Your task to perform on an android device: search for starred emails in the gmail app Image 0: 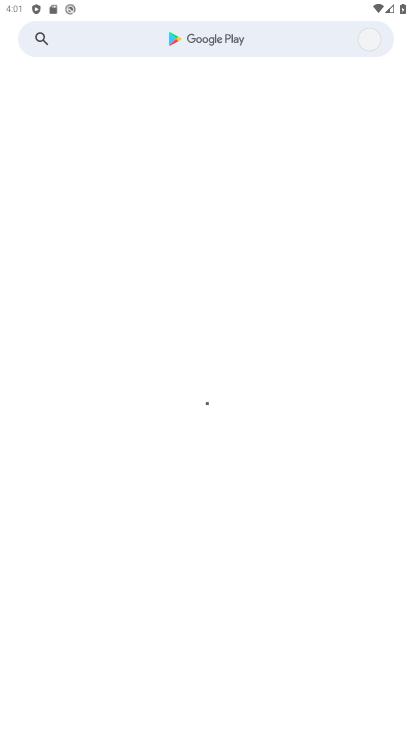
Step 0: press home button
Your task to perform on an android device: search for starred emails in the gmail app Image 1: 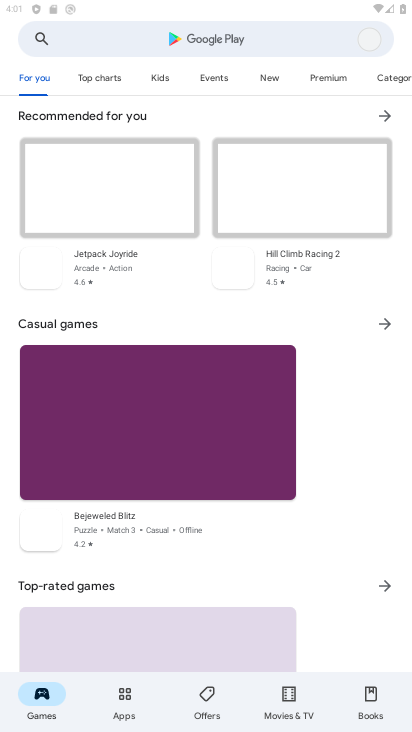
Step 1: press home button
Your task to perform on an android device: search for starred emails in the gmail app Image 2: 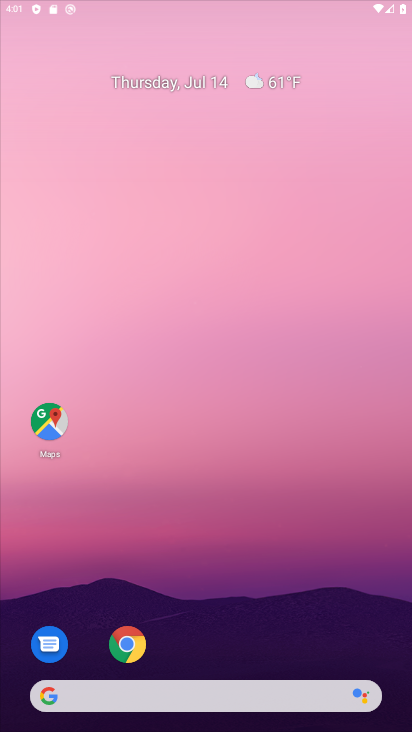
Step 2: press home button
Your task to perform on an android device: search for starred emails in the gmail app Image 3: 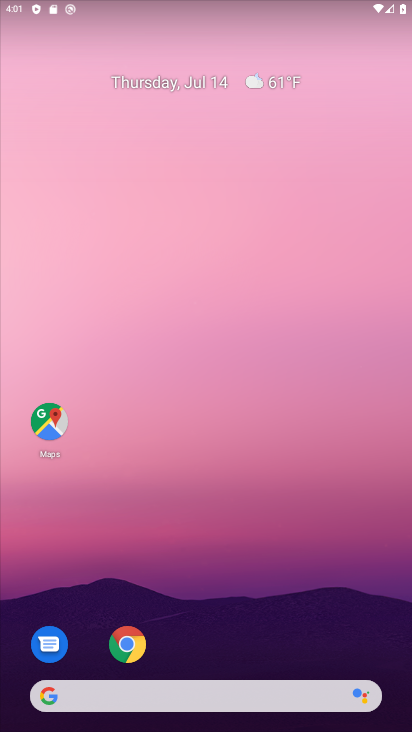
Step 3: drag from (229, 662) to (288, 133)
Your task to perform on an android device: search for starred emails in the gmail app Image 4: 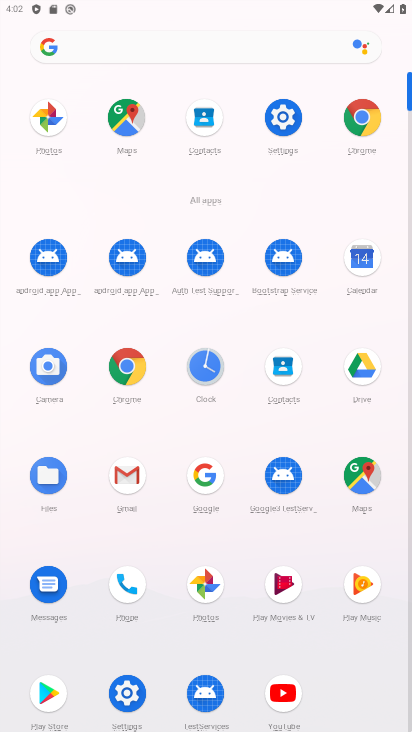
Step 4: click (138, 492)
Your task to perform on an android device: search for starred emails in the gmail app Image 5: 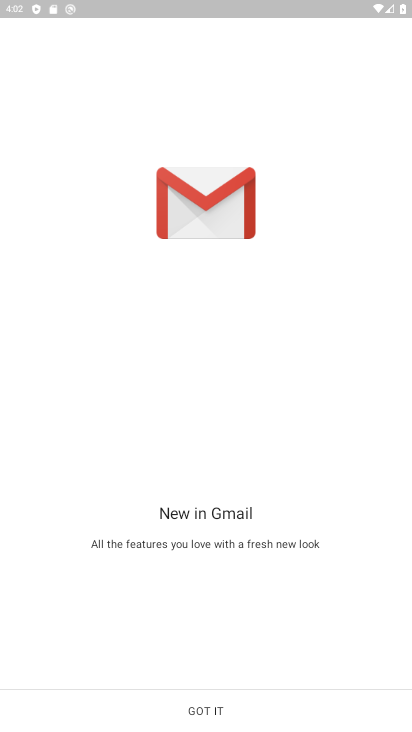
Step 5: click (278, 714)
Your task to perform on an android device: search for starred emails in the gmail app Image 6: 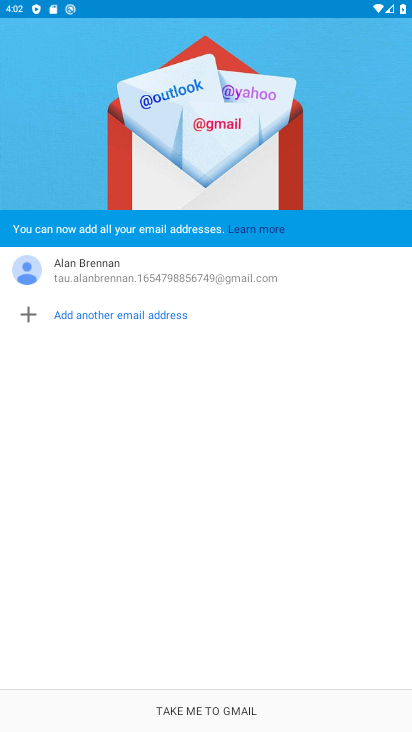
Step 6: click (196, 714)
Your task to perform on an android device: search for starred emails in the gmail app Image 7: 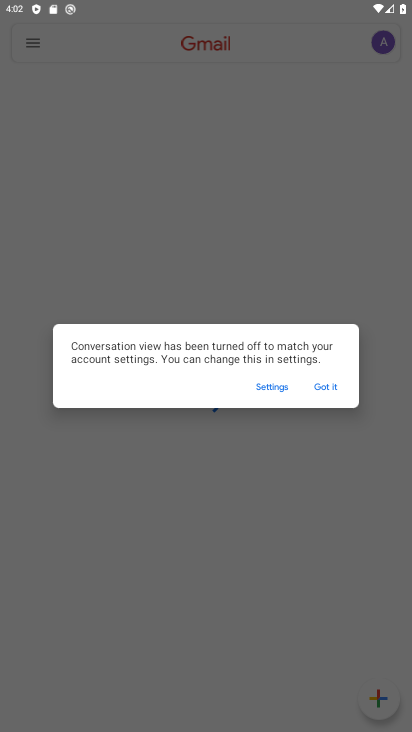
Step 7: click (338, 382)
Your task to perform on an android device: search for starred emails in the gmail app Image 8: 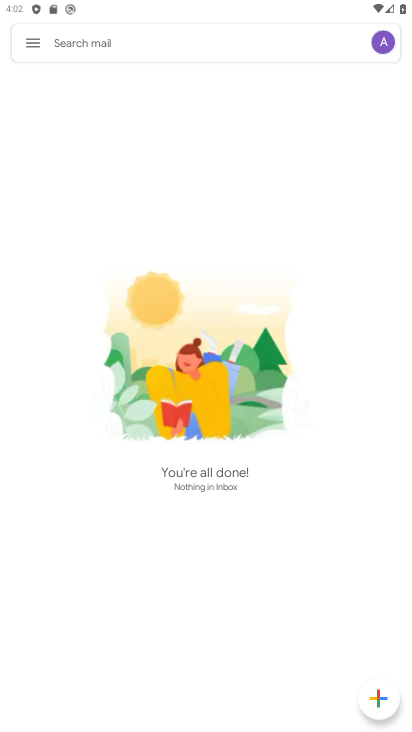
Step 8: click (32, 44)
Your task to perform on an android device: search for starred emails in the gmail app Image 9: 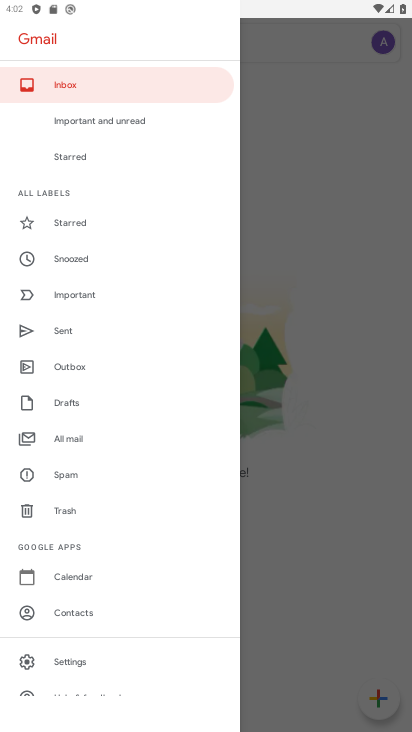
Step 9: click (52, 212)
Your task to perform on an android device: search for starred emails in the gmail app Image 10: 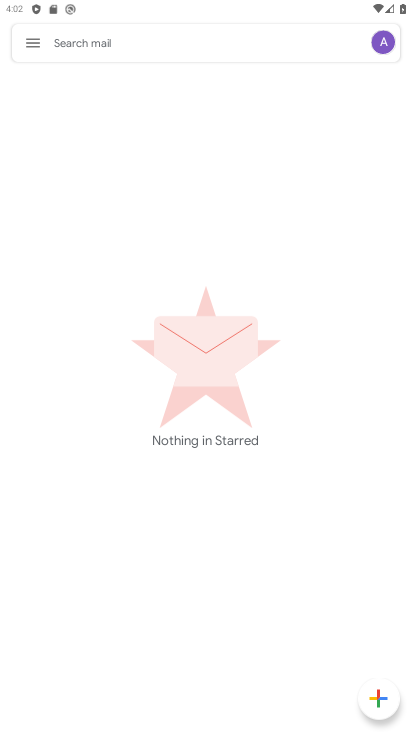
Step 10: task complete